Your task to perform on an android device: Open the Play Movies app and select the watchlist tab. Image 0: 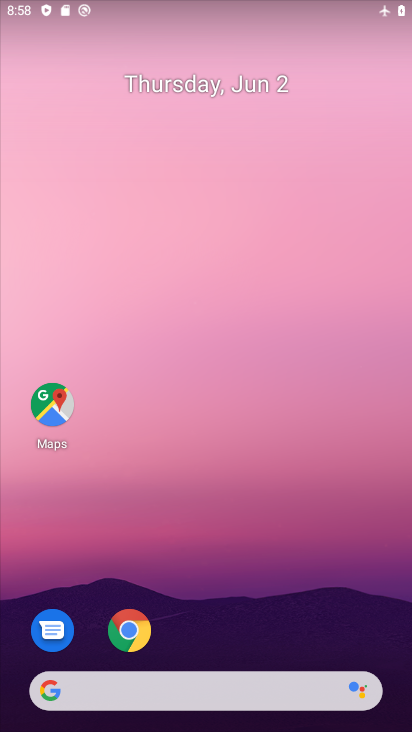
Step 0: drag from (249, 611) to (257, 11)
Your task to perform on an android device: Open the Play Movies app and select the watchlist tab. Image 1: 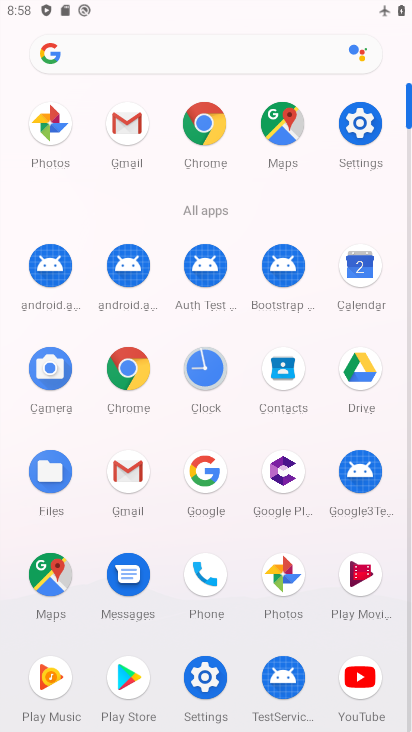
Step 1: click (361, 565)
Your task to perform on an android device: Open the Play Movies app and select the watchlist tab. Image 2: 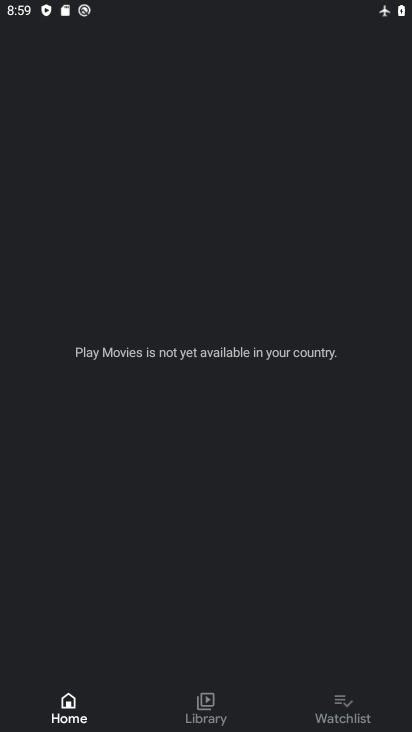
Step 2: click (341, 718)
Your task to perform on an android device: Open the Play Movies app and select the watchlist tab. Image 3: 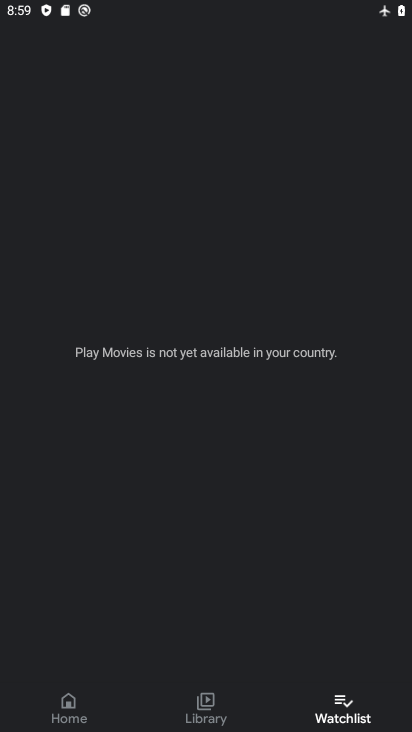
Step 3: task complete